Your task to perform on an android device: Go to Google Image 0: 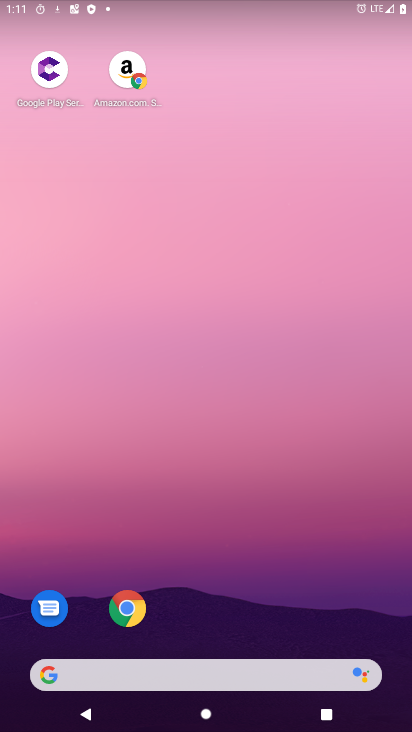
Step 0: drag from (273, 696) to (214, 279)
Your task to perform on an android device: Go to Google Image 1: 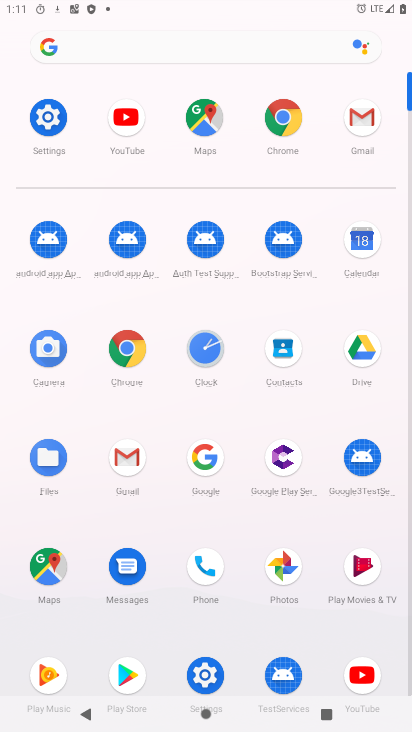
Step 1: click (40, 42)
Your task to perform on an android device: Go to Google Image 2: 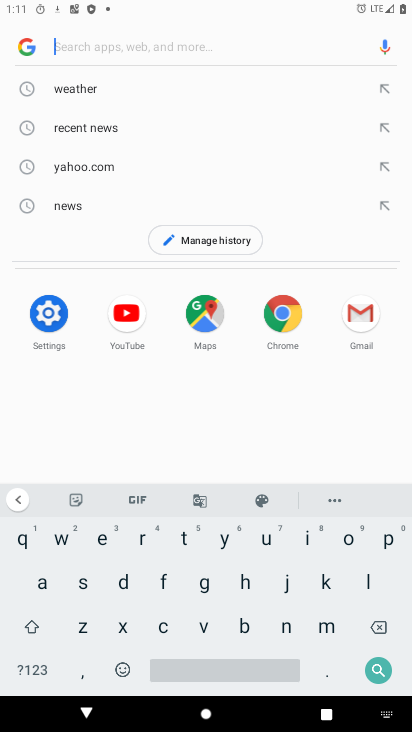
Step 2: click (25, 47)
Your task to perform on an android device: Go to Google Image 3: 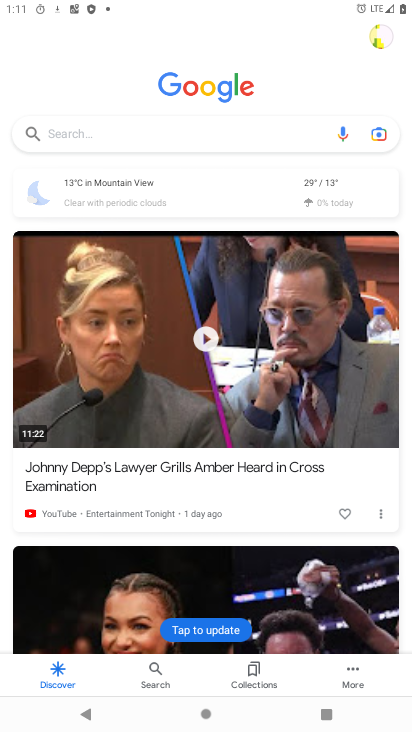
Step 3: task complete